Your task to perform on an android device: Go to Maps Image 0: 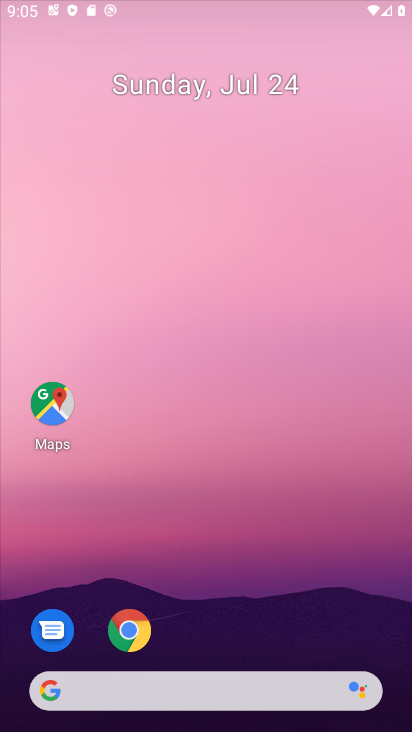
Step 0: drag from (237, 632) to (232, 220)
Your task to perform on an android device: Go to Maps Image 1: 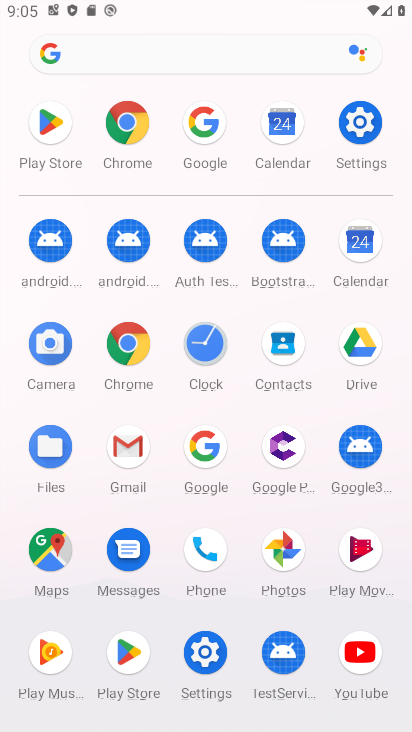
Step 1: click (47, 549)
Your task to perform on an android device: Go to Maps Image 2: 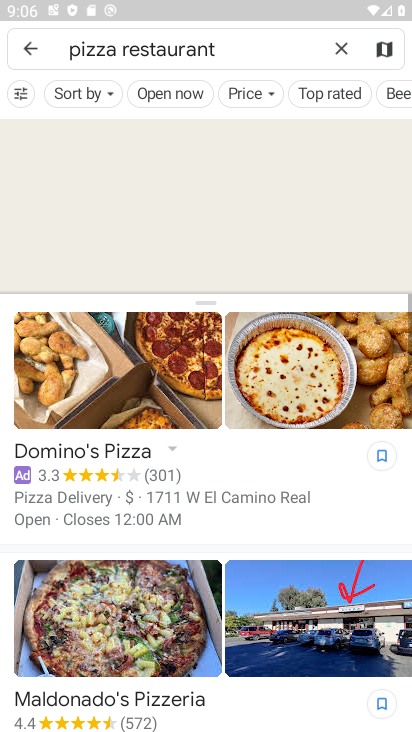
Step 2: task complete